Your task to perform on an android device: change the clock display to analog Image 0: 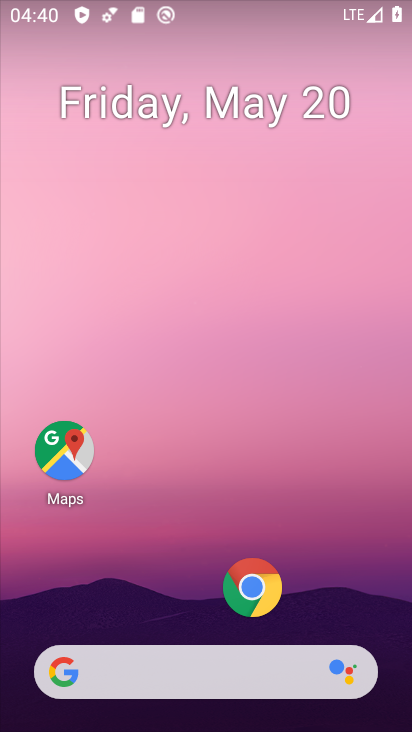
Step 0: drag from (160, 635) to (207, 104)
Your task to perform on an android device: change the clock display to analog Image 1: 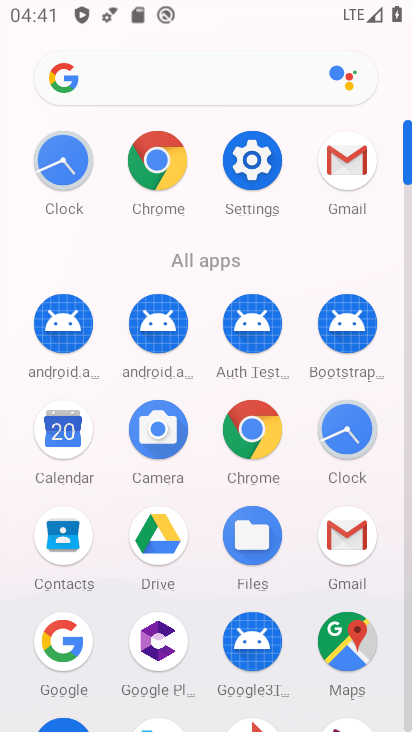
Step 1: click (346, 450)
Your task to perform on an android device: change the clock display to analog Image 2: 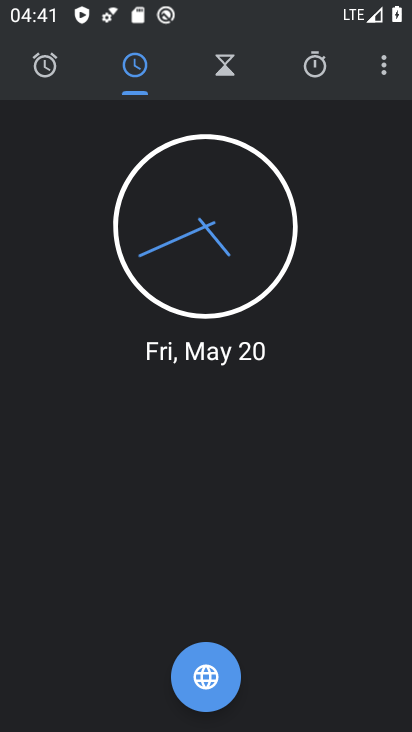
Step 2: click (376, 62)
Your task to perform on an android device: change the clock display to analog Image 3: 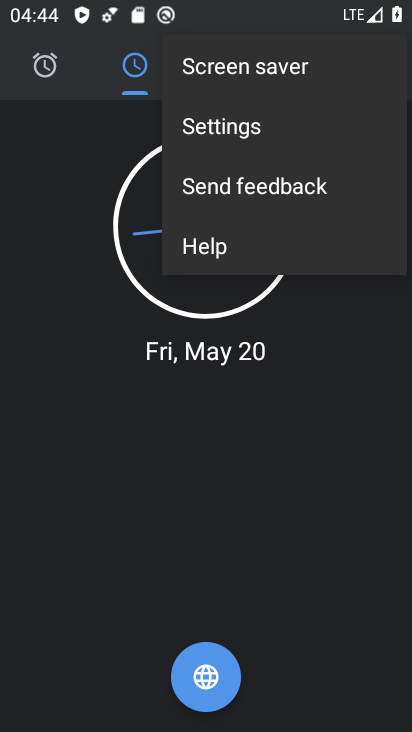
Step 3: click (210, 134)
Your task to perform on an android device: change the clock display to analog Image 4: 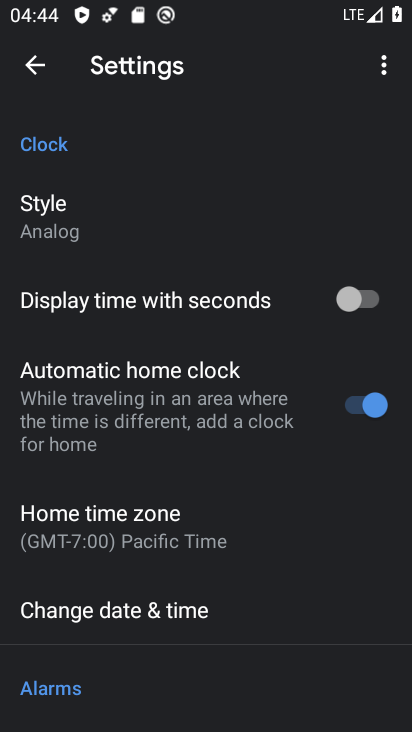
Step 4: task complete